Your task to perform on an android device: search for starred emails in the gmail app Image 0: 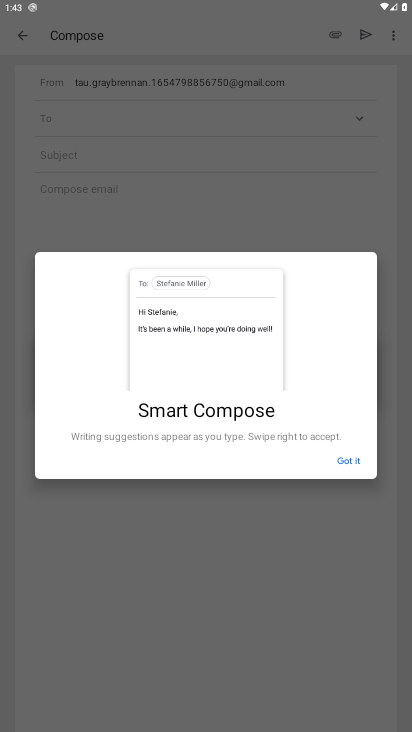
Step 0: press home button
Your task to perform on an android device: search for starred emails in the gmail app Image 1: 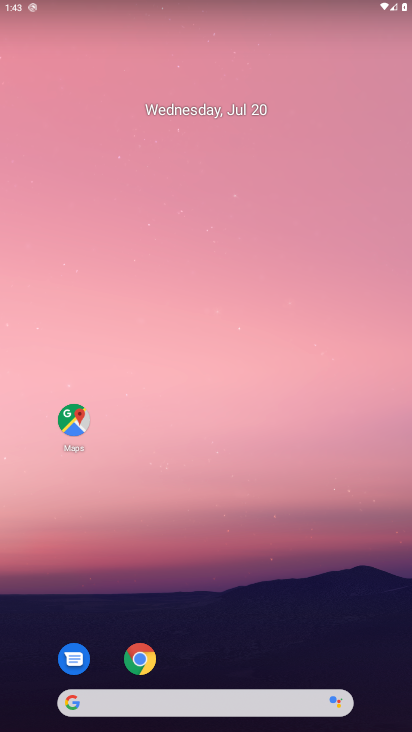
Step 1: drag from (29, 692) to (231, 169)
Your task to perform on an android device: search for starred emails in the gmail app Image 2: 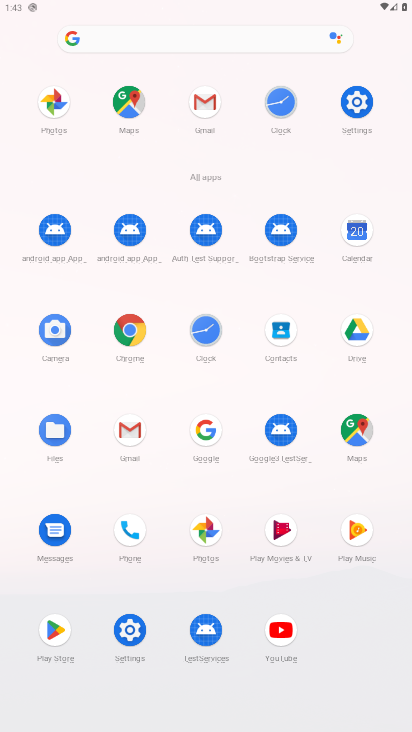
Step 2: click (135, 428)
Your task to perform on an android device: search for starred emails in the gmail app Image 3: 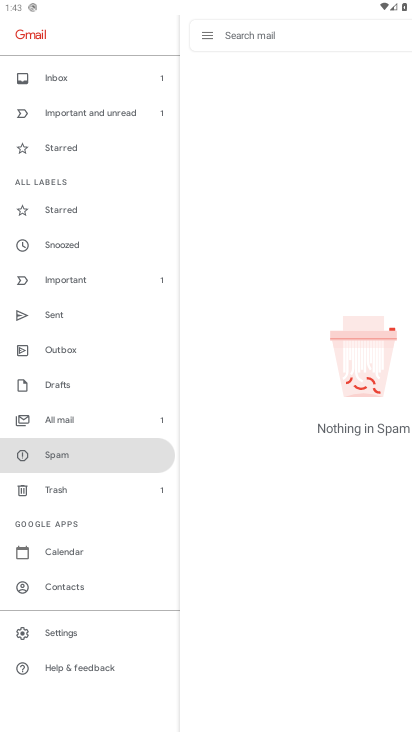
Step 3: click (93, 205)
Your task to perform on an android device: search for starred emails in the gmail app Image 4: 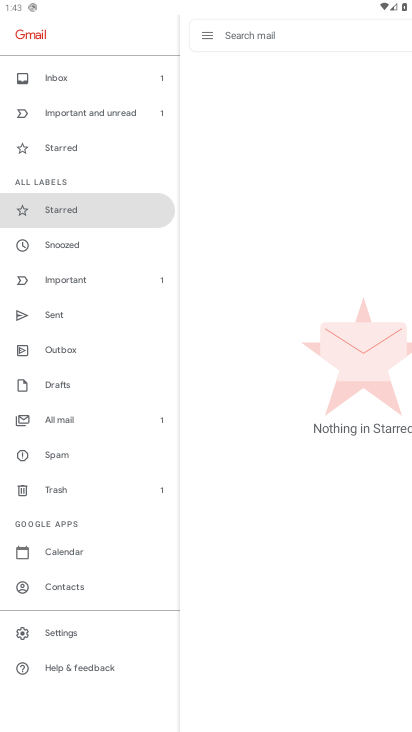
Step 4: click (77, 198)
Your task to perform on an android device: search for starred emails in the gmail app Image 5: 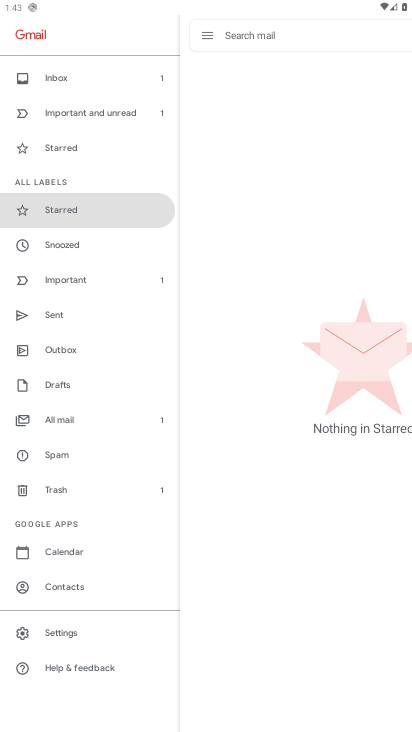
Step 5: click (74, 212)
Your task to perform on an android device: search for starred emails in the gmail app Image 6: 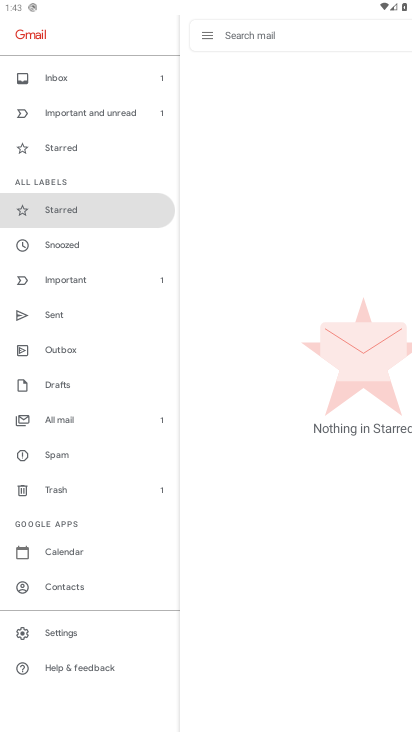
Step 6: click (84, 219)
Your task to perform on an android device: search for starred emails in the gmail app Image 7: 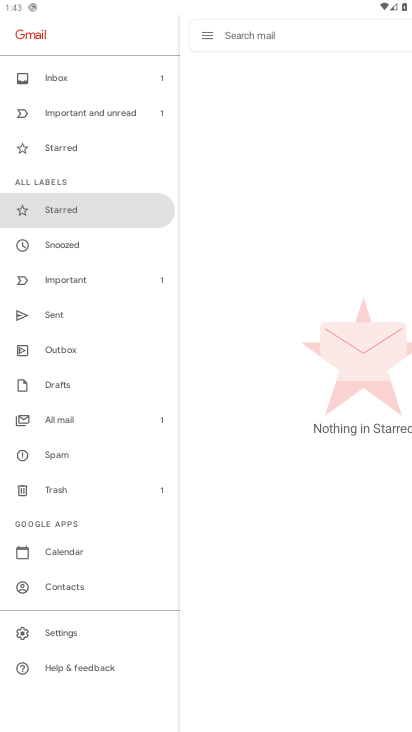
Step 7: task complete